Your task to perform on an android device: Open the calendar app, open the side menu, and click the "Day" option Image 0: 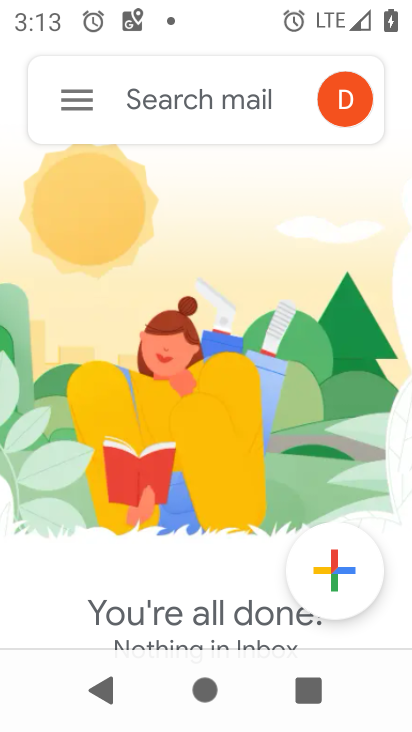
Step 0: press home button
Your task to perform on an android device: Open the calendar app, open the side menu, and click the "Day" option Image 1: 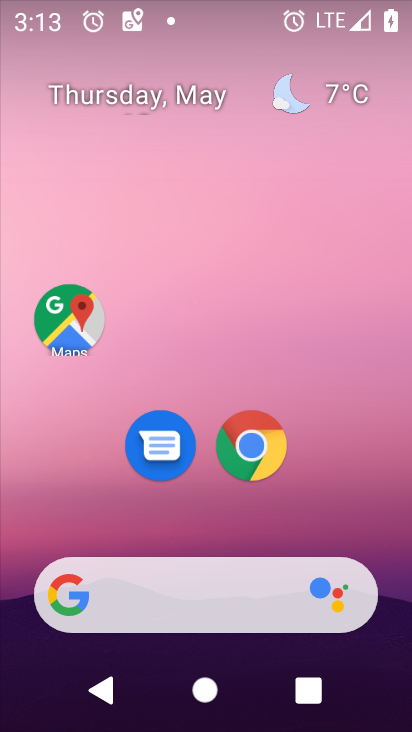
Step 1: drag from (367, 545) to (381, 0)
Your task to perform on an android device: Open the calendar app, open the side menu, and click the "Day" option Image 2: 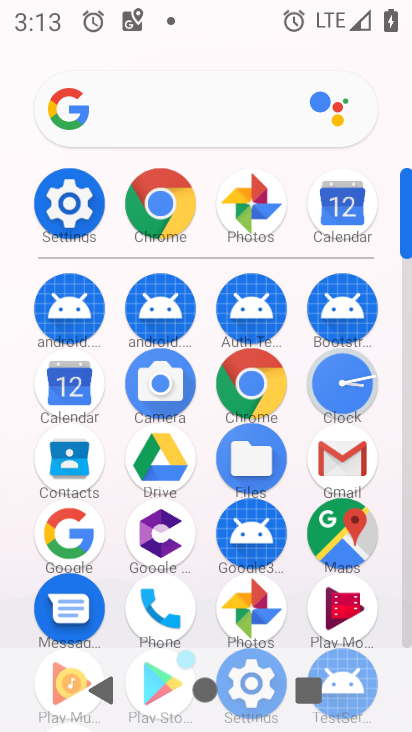
Step 2: click (337, 212)
Your task to perform on an android device: Open the calendar app, open the side menu, and click the "Day" option Image 3: 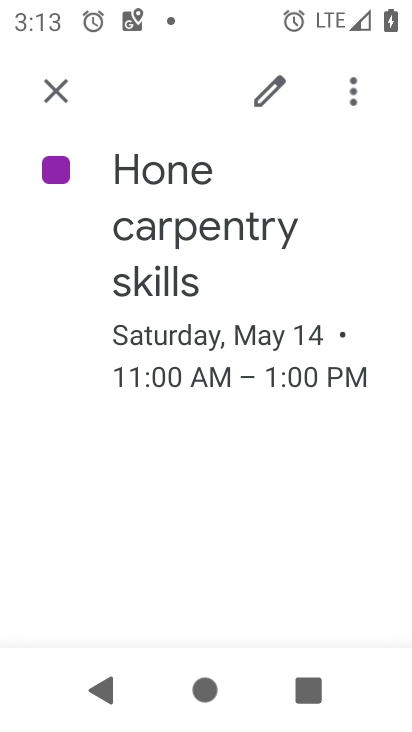
Step 3: click (59, 88)
Your task to perform on an android device: Open the calendar app, open the side menu, and click the "Day" option Image 4: 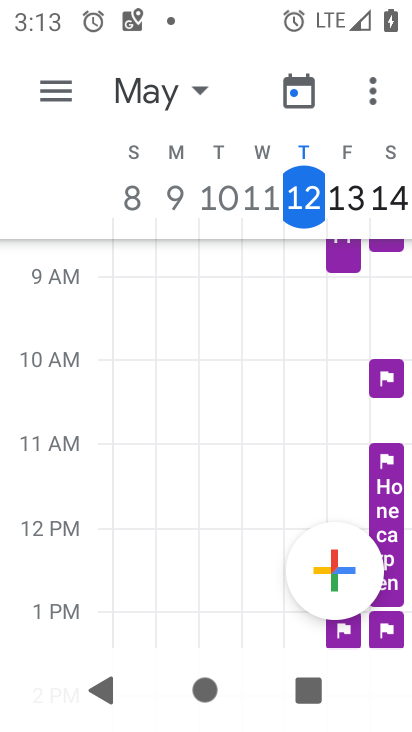
Step 4: click (59, 88)
Your task to perform on an android device: Open the calendar app, open the side menu, and click the "Day" option Image 5: 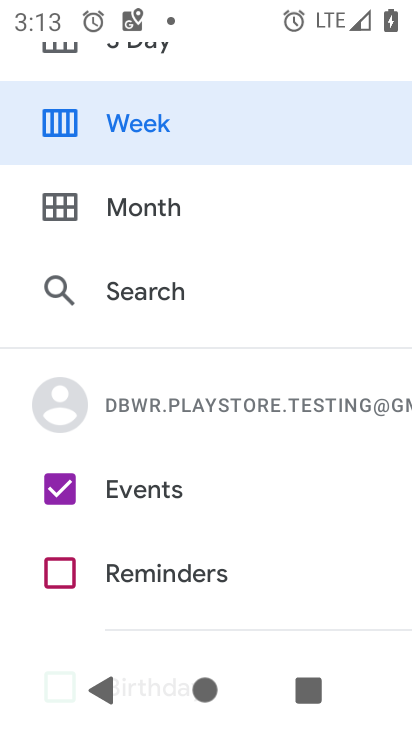
Step 5: drag from (216, 225) to (230, 613)
Your task to perform on an android device: Open the calendar app, open the side menu, and click the "Day" option Image 6: 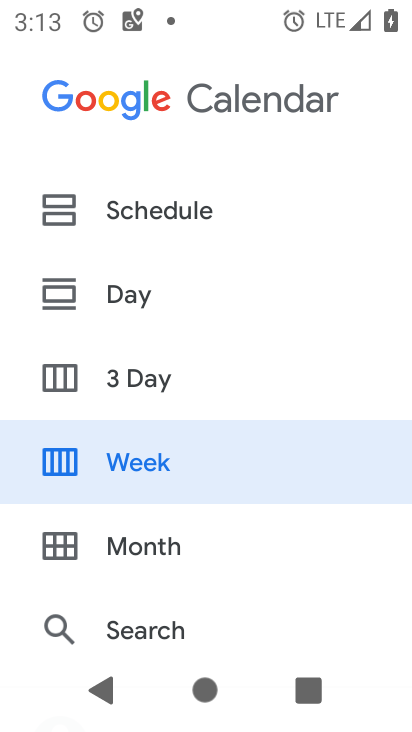
Step 6: click (110, 285)
Your task to perform on an android device: Open the calendar app, open the side menu, and click the "Day" option Image 7: 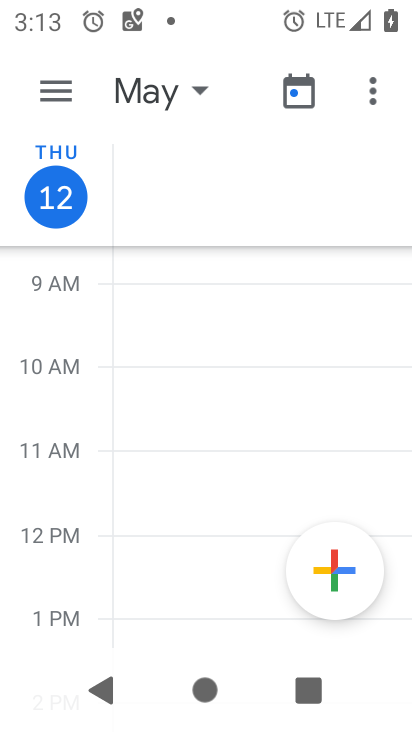
Step 7: task complete